Your task to perform on an android device: Add "dell alienware" to the cart on walmart.com Image 0: 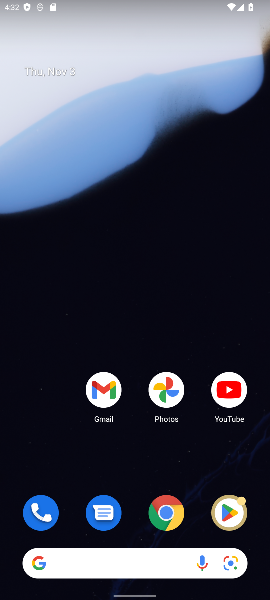
Step 0: click (173, 522)
Your task to perform on an android device: Add "dell alienware" to the cart on walmart.com Image 1: 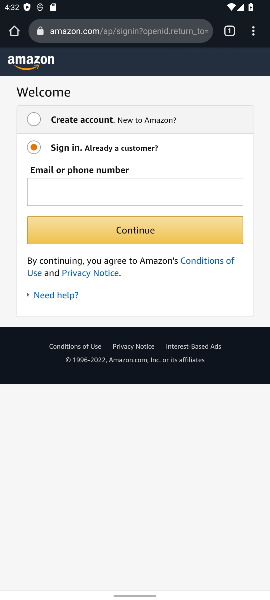
Step 1: click (231, 34)
Your task to perform on an android device: Add "dell alienware" to the cart on walmart.com Image 2: 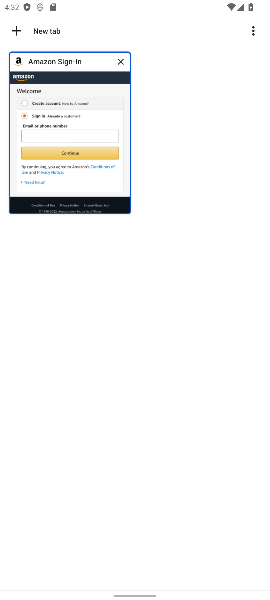
Step 2: click (17, 29)
Your task to perform on an android device: Add "dell alienware" to the cart on walmart.com Image 3: 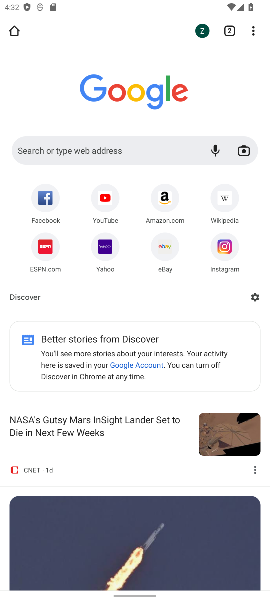
Step 3: click (135, 154)
Your task to perform on an android device: Add "dell alienware" to the cart on walmart.com Image 4: 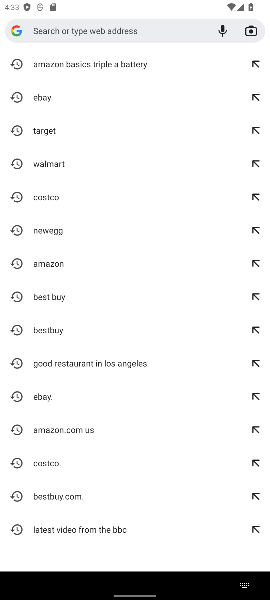
Step 4: type "walmart"
Your task to perform on an android device: Add "dell alienware" to the cart on walmart.com Image 5: 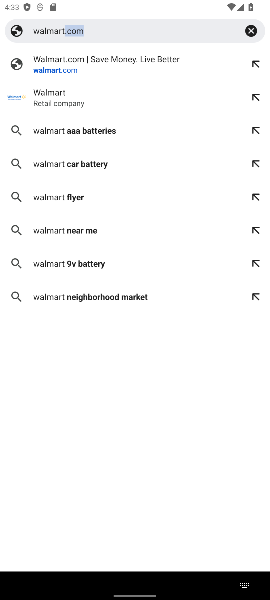
Step 5: click (51, 58)
Your task to perform on an android device: Add "dell alienware" to the cart on walmart.com Image 6: 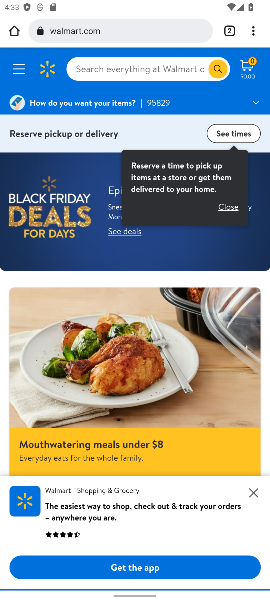
Step 6: click (110, 73)
Your task to perform on an android device: Add "dell alienware" to the cart on walmart.com Image 7: 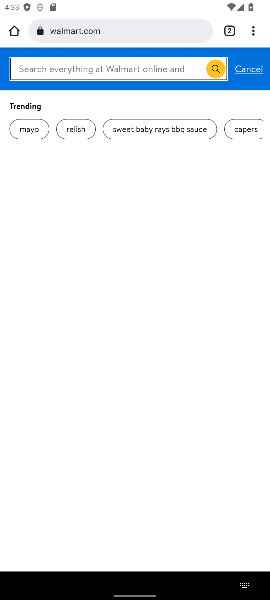
Step 7: type "dell alienware"
Your task to perform on an android device: Add "dell alienware" to the cart on walmart.com Image 8: 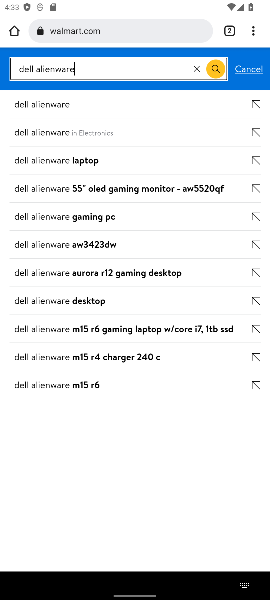
Step 8: click (25, 133)
Your task to perform on an android device: Add "dell alienware" to the cart on walmart.com Image 9: 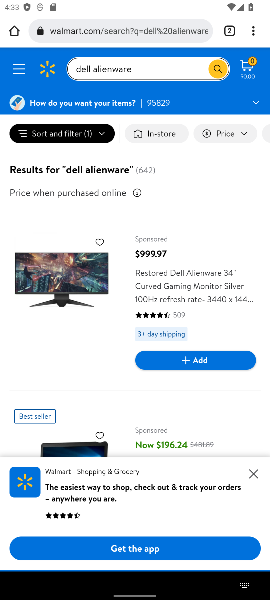
Step 9: click (253, 473)
Your task to perform on an android device: Add "dell alienware" to the cart on walmart.com Image 10: 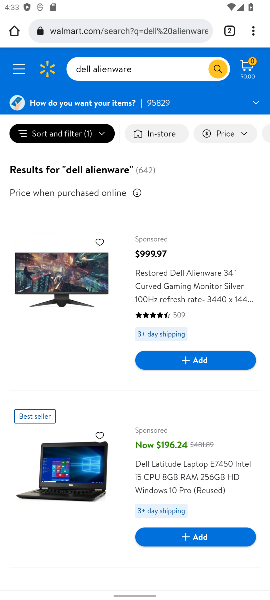
Step 10: click (193, 359)
Your task to perform on an android device: Add "dell alienware" to the cart on walmart.com Image 11: 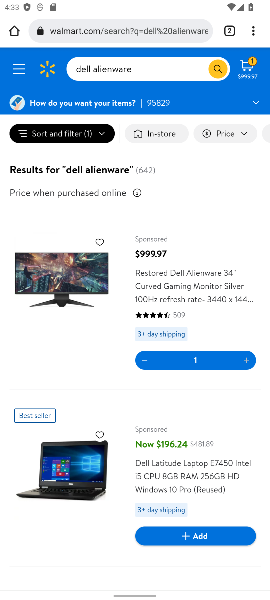
Step 11: task complete